Your task to perform on an android device: Search for Mexican restaurants on Maps Image 0: 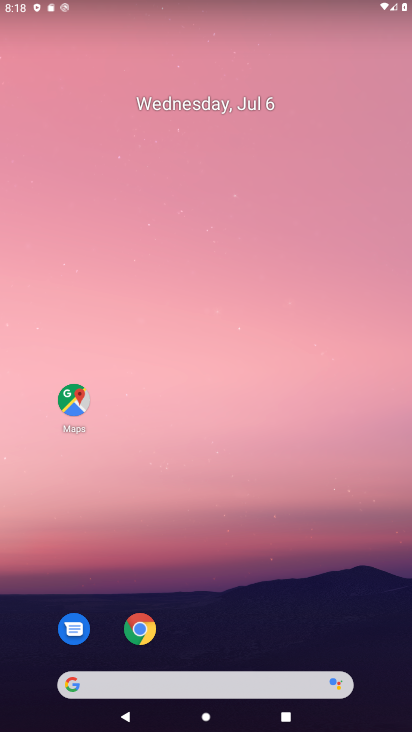
Step 0: drag from (168, 635) to (135, 129)
Your task to perform on an android device: Search for Mexican restaurants on Maps Image 1: 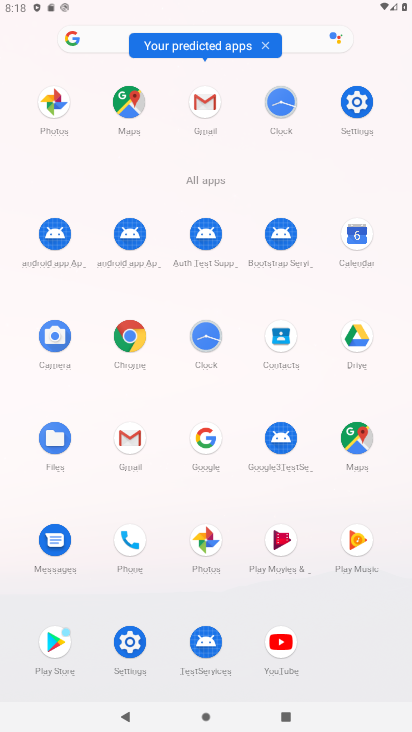
Step 1: click (359, 438)
Your task to perform on an android device: Search for Mexican restaurants on Maps Image 2: 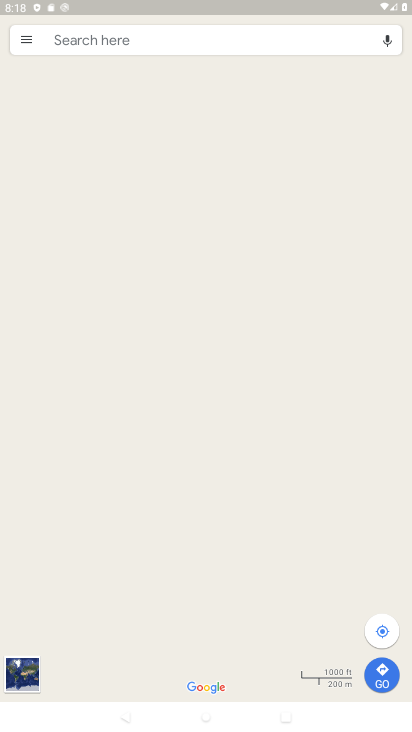
Step 2: click (200, 44)
Your task to perform on an android device: Search for Mexican restaurants on Maps Image 3: 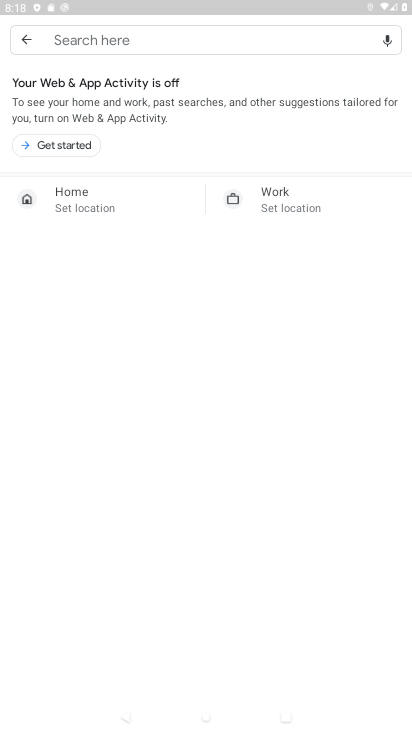
Step 3: click (168, 39)
Your task to perform on an android device: Search for Mexican restaurants on Maps Image 4: 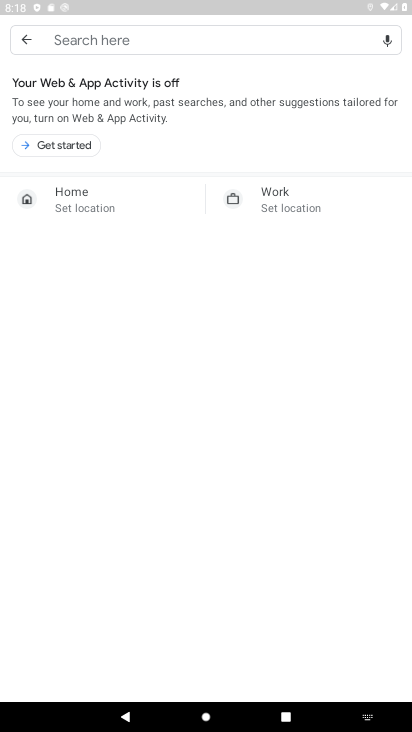
Step 4: click (119, 38)
Your task to perform on an android device: Search for Mexican restaurants on Maps Image 5: 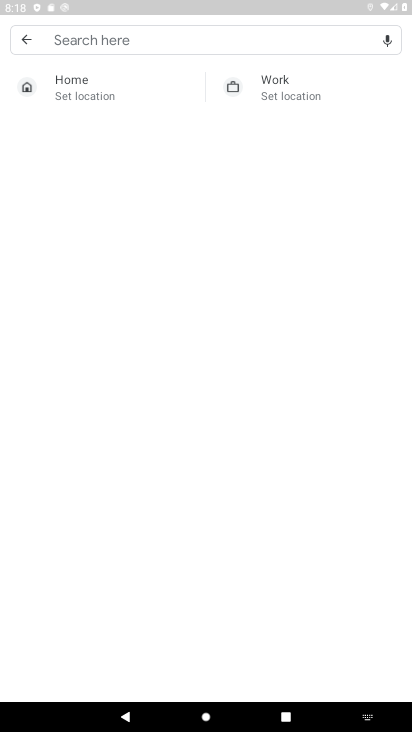
Step 5: type "Mexican restaurants"
Your task to perform on an android device: Search for Mexican restaurants on Maps Image 6: 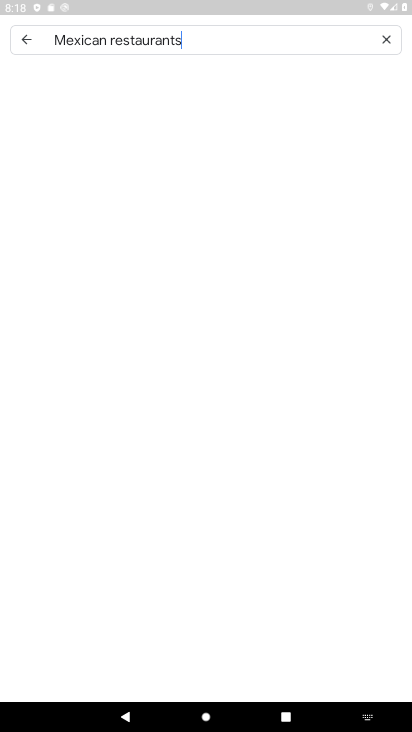
Step 6: type ""
Your task to perform on an android device: Search for Mexican restaurants on Maps Image 7: 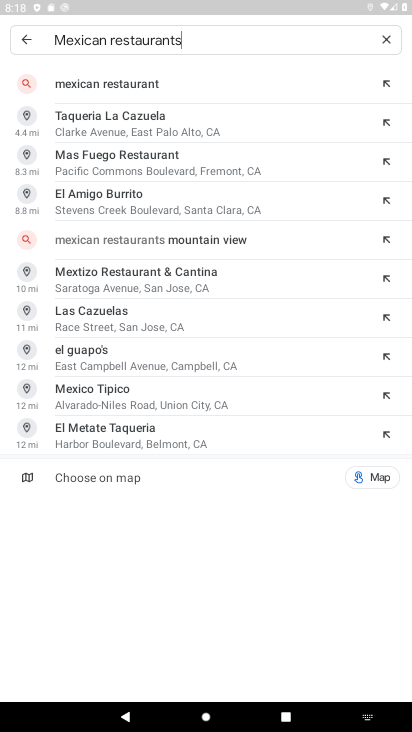
Step 7: click (107, 83)
Your task to perform on an android device: Search for Mexican restaurants on Maps Image 8: 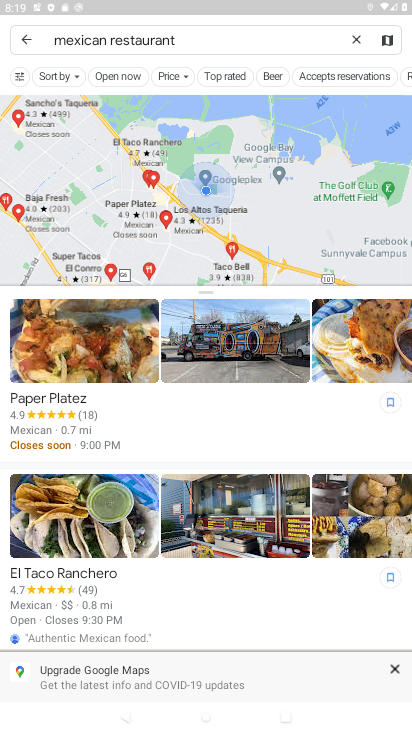
Step 8: task complete